Your task to perform on an android device: Open Chrome and go to settings Image 0: 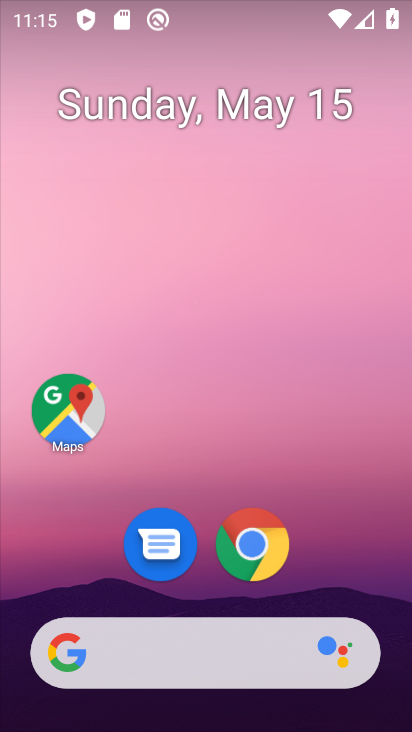
Step 0: click (257, 528)
Your task to perform on an android device: Open Chrome and go to settings Image 1: 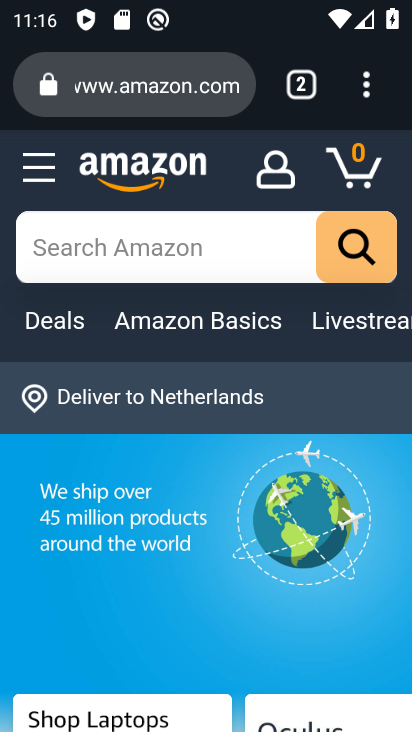
Step 1: click (372, 91)
Your task to perform on an android device: Open Chrome and go to settings Image 2: 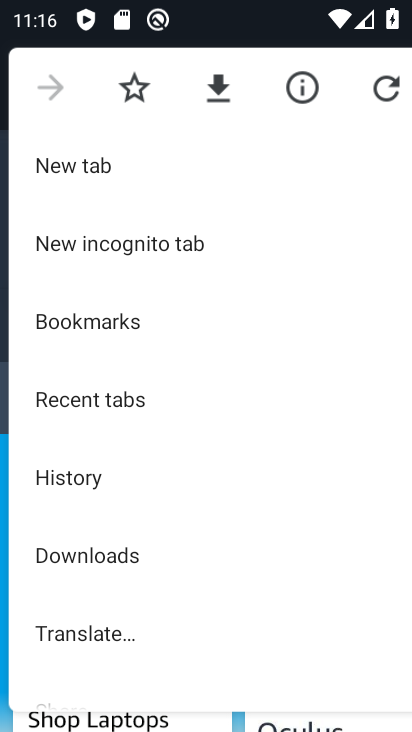
Step 2: drag from (251, 670) to (219, 190)
Your task to perform on an android device: Open Chrome and go to settings Image 3: 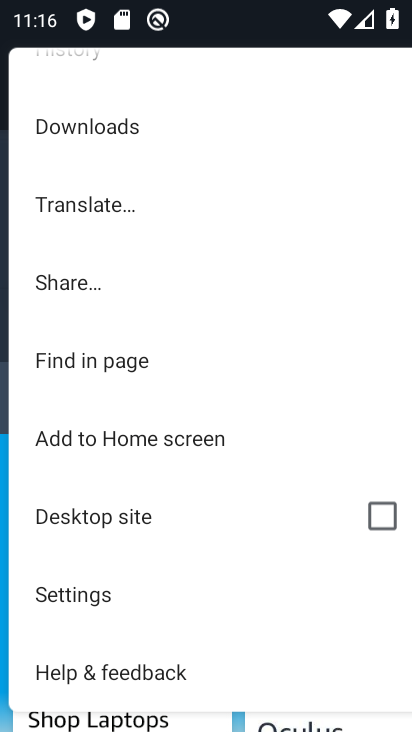
Step 3: click (238, 601)
Your task to perform on an android device: Open Chrome and go to settings Image 4: 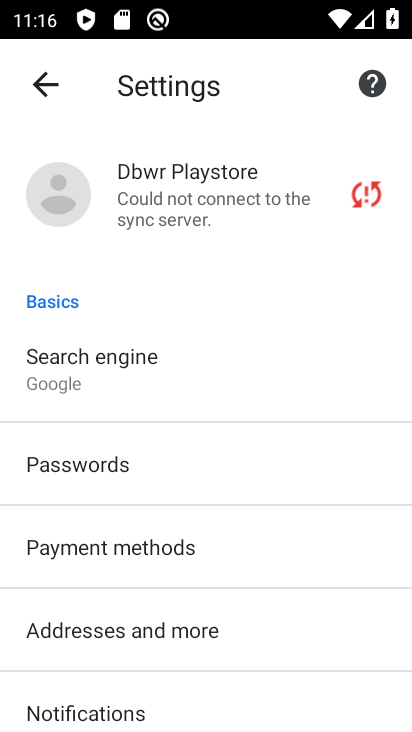
Step 4: task complete